Your task to perform on an android device: Do I have any events today? Image 0: 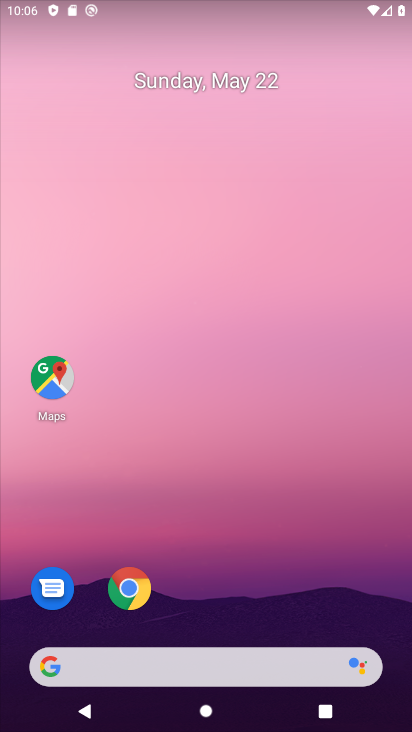
Step 0: drag from (243, 694) to (238, 176)
Your task to perform on an android device: Do I have any events today? Image 1: 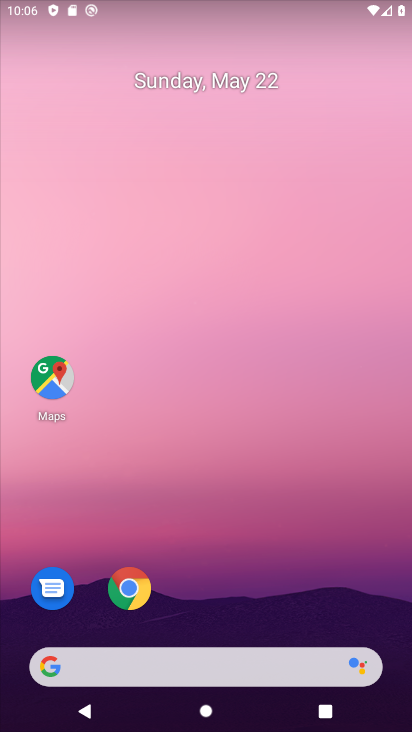
Step 1: drag from (218, 726) to (203, 40)
Your task to perform on an android device: Do I have any events today? Image 2: 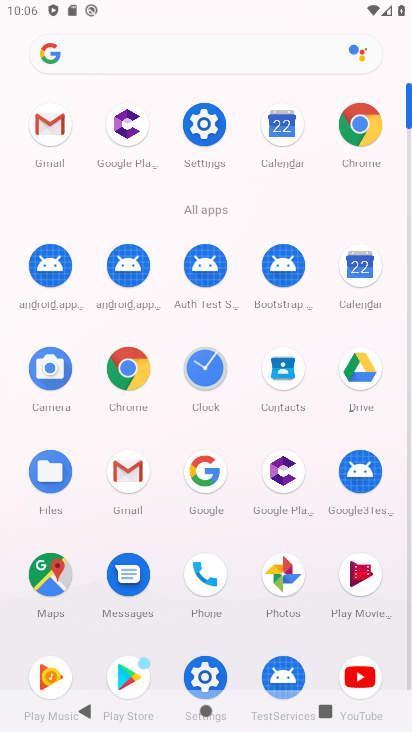
Step 2: click (280, 121)
Your task to perform on an android device: Do I have any events today? Image 3: 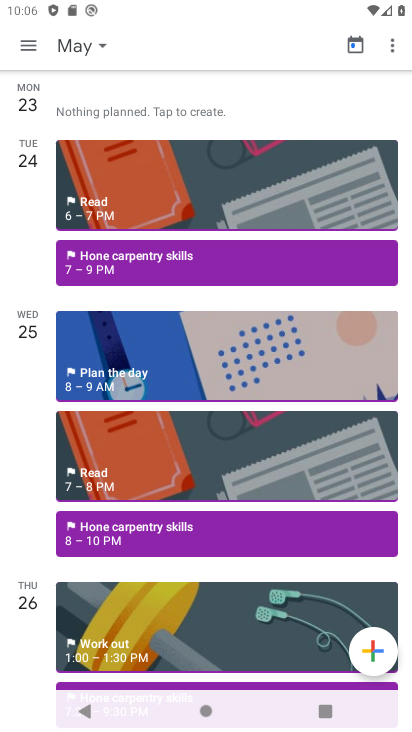
Step 3: click (95, 45)
Your task to perform on an android device: Do I have any events today? Image 4: 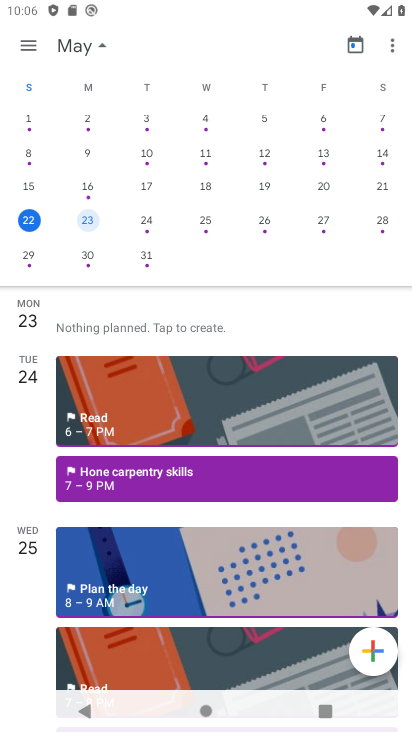
Step 4: click (29, 218)
Your task to perform on an android device: Do I have any events today? Image 5: 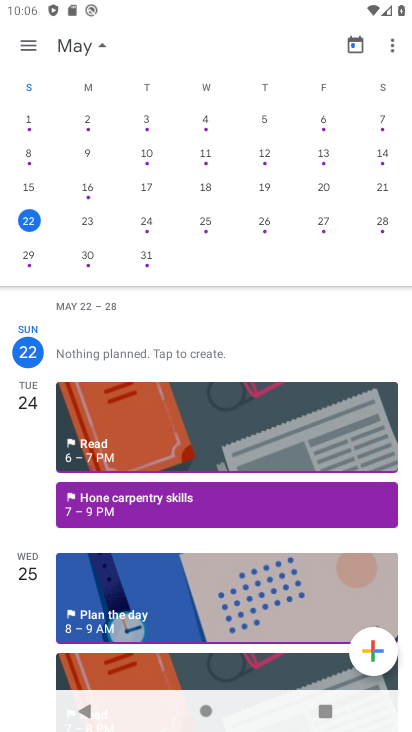
Step 5: click (29, 218)
Your task to perform on an android device: Do I have any events today? Image 6: 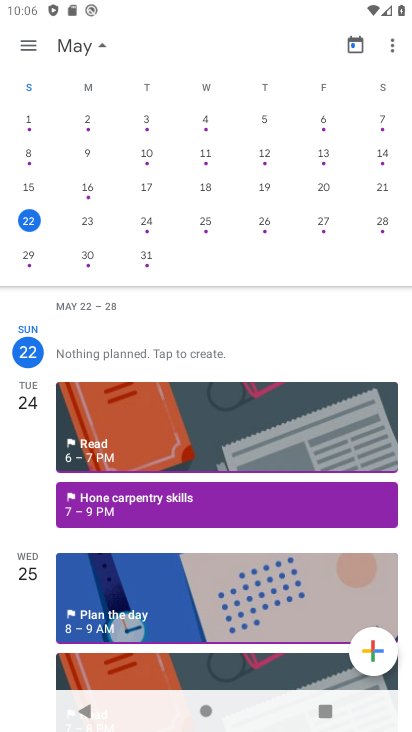
Step 6: task complete